Your task to perform on an android device: Go to notification settings Image 0: 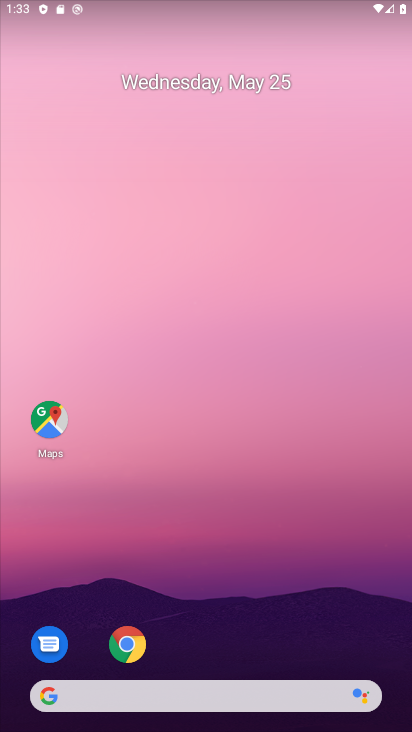
Step 0: drag from (352, 614) to (366, 149)
Your task to perform on an android device: Go to notification settings Image 1: 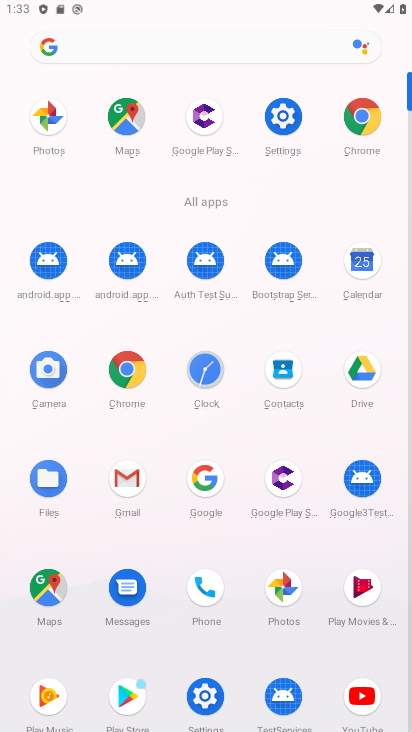
Step 1: click (285, 130)
Your task to perform on an android device: Go to notification settings Image 2: 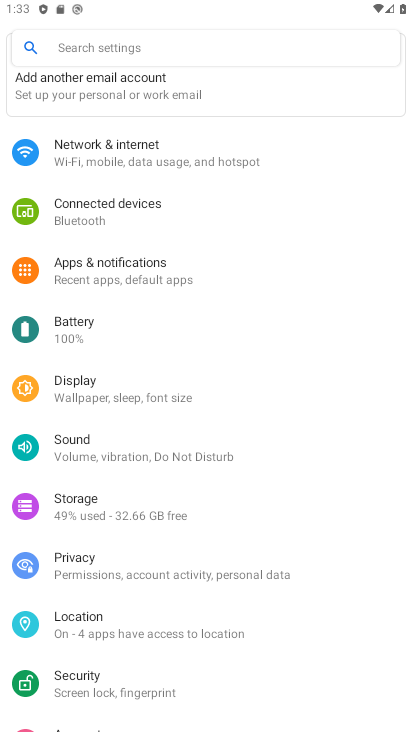
Step 2: drag from (323, 467) to (323, 291)
Your task to perform on an android device: Go to notification settings Image 3: 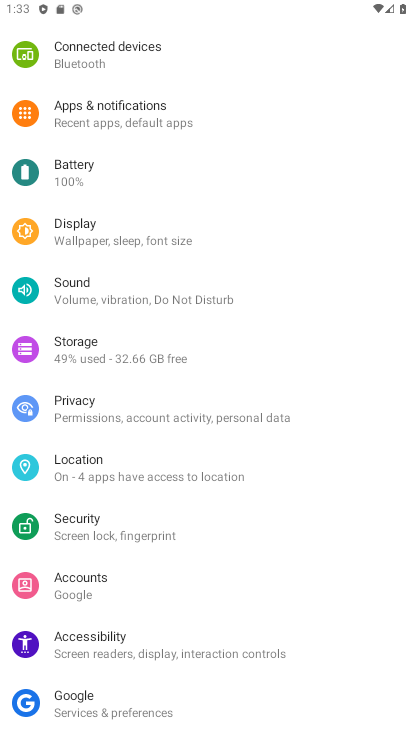
Step 3: drag from (332, 595) to (338, 422)
Your task to perform on an android device: Go to notification settings Image 4: 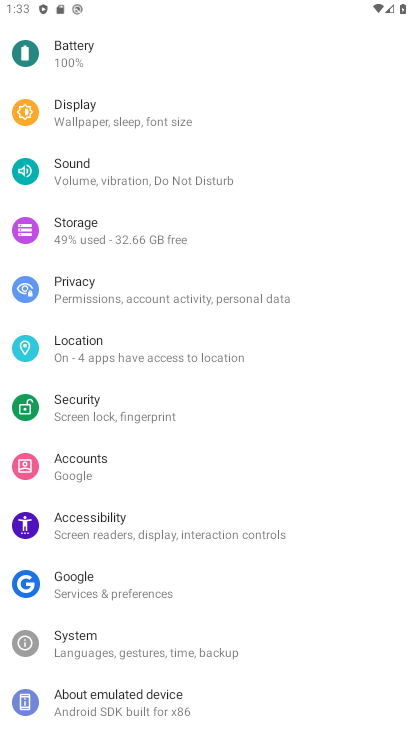
Step 4: drag from (327, 640) to (328, 483)
Your task to perform on an android device: Go to notification settings Image 5: 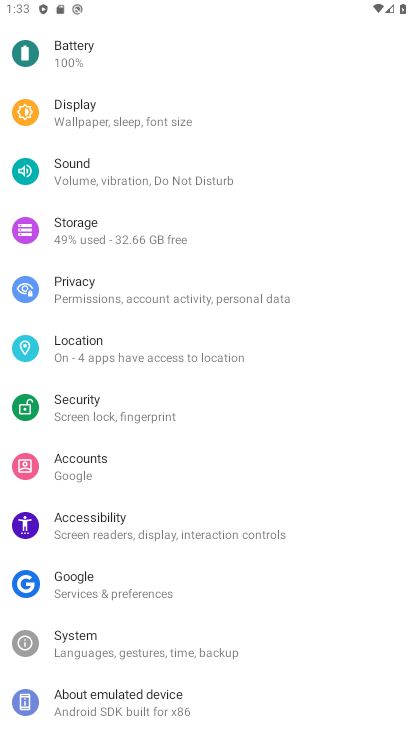
Step 5: drag from (338, 306) to (336, 478)
Your task to perform on an android device: Go to notification settings Image 6: 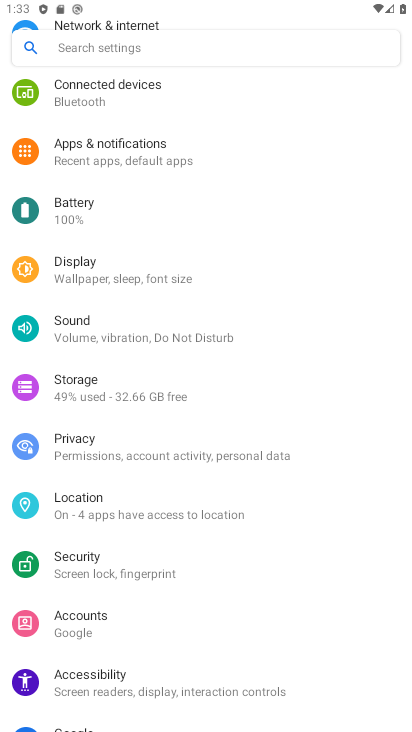
Step 6: drag from (314, 279) to (316, 449)
Your task to perform on an android device: Go to notification settings Image 7: 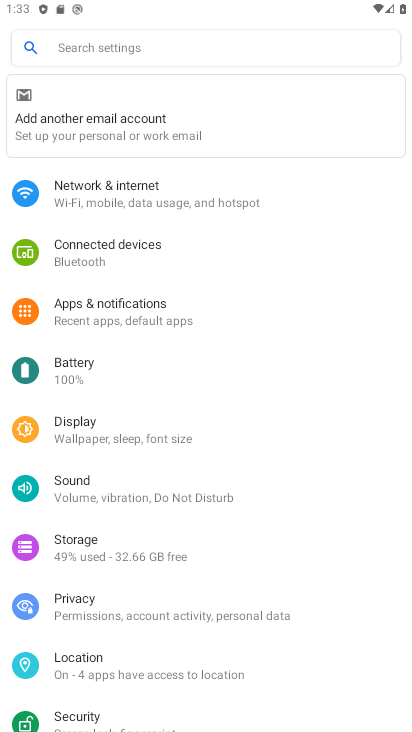
Step 7: click (172, 330)
Your task to perform on an android device: Go to notification settings Image 8: 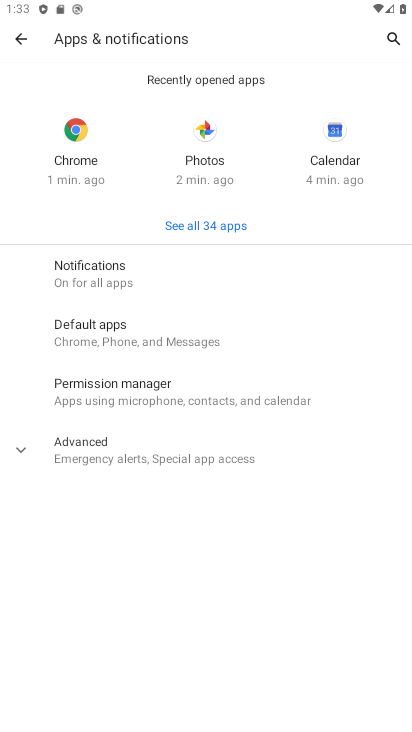
Step 8: click (99, 279)
Your task to perform on an android device: Go to notification settings Image 9: 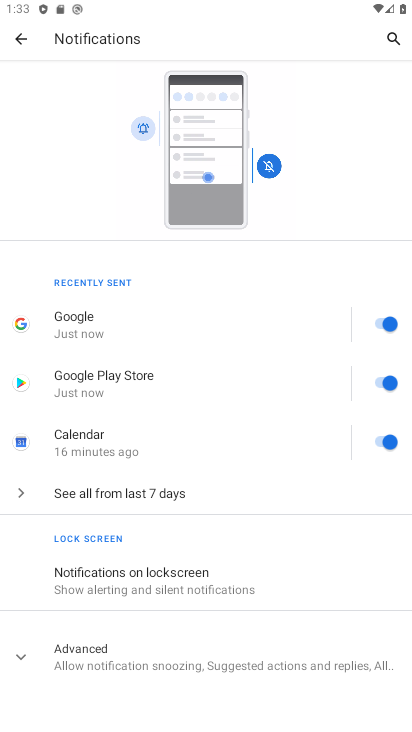
Step 9: task complete